Your task to perform on an android device: Do I have any events this weekend? Image 0: 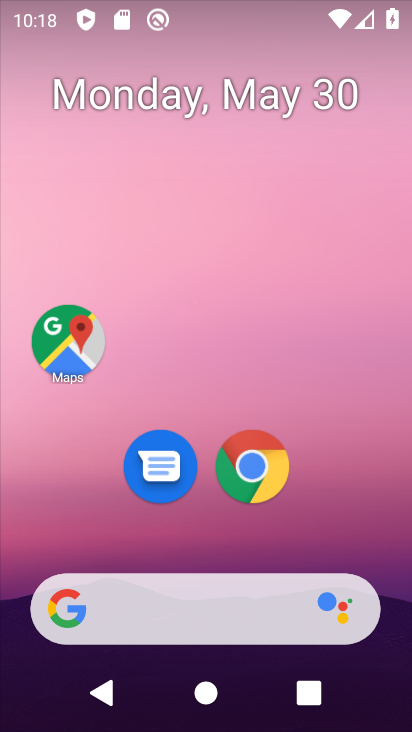
Step 0: drag from (181, 693) to (130, 80)
Your task to perform on an android device: Do I have any events this weekend? Image 1: 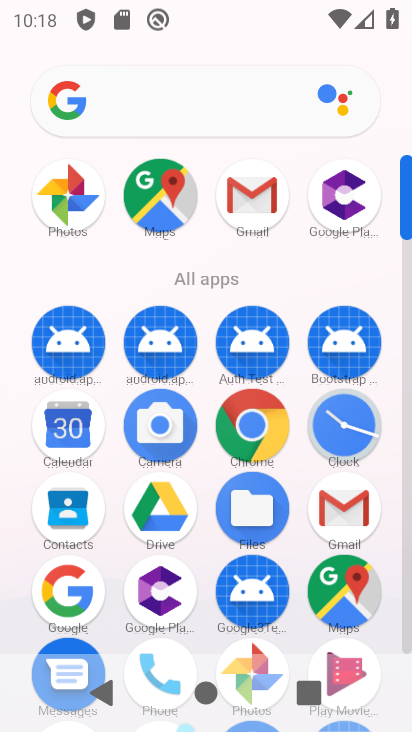
Step 1: click (70, 449)
Your task to perform on an android device: Do I have any events this weekend? Image 2: 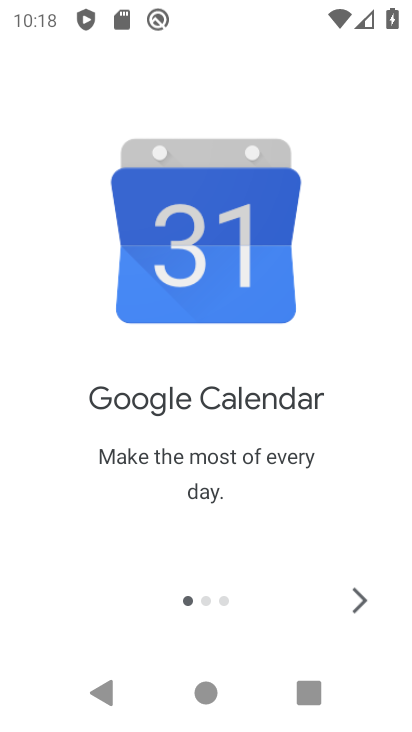
Step 2: click (360, 592)
Your task to perform on an android device: Do I have any events this weekend? Image 3: 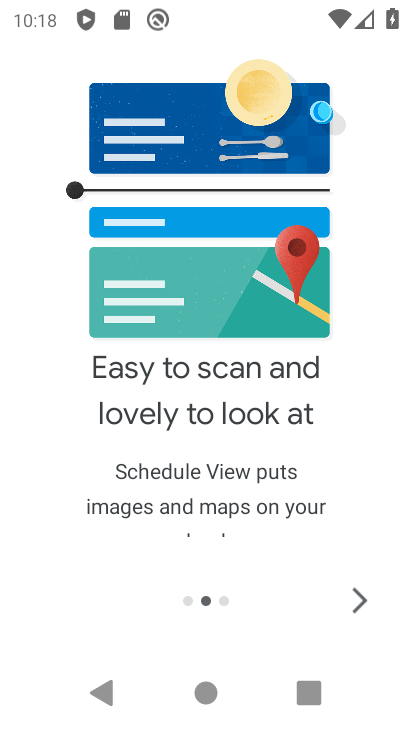
Step 3: click (360, 592)
Your task to perform on an android device: Do I have any events this weekend? Image 4: 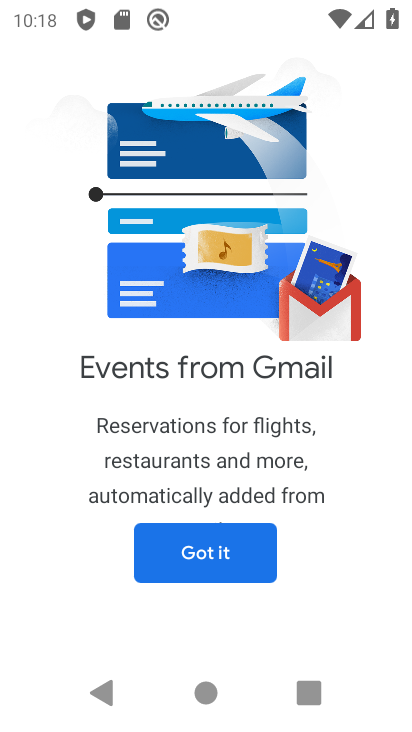
Step 4: click (178, 549)
Your task to perform on an android device: Do I have any events this weekend? Image 5: 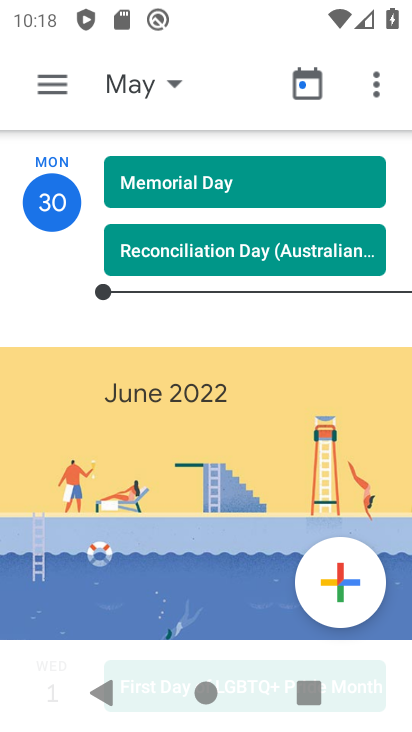
Step 5: click (54, 88)
Your task to perform on an android device: Do I have any events this weekend? Image 6: 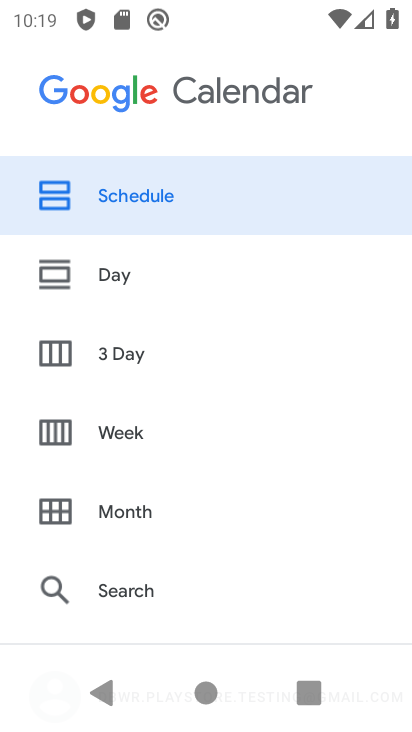
Step 6: click (123, 359)
Your task to perform on an android device: Do I have any events this weekend? Image 7: 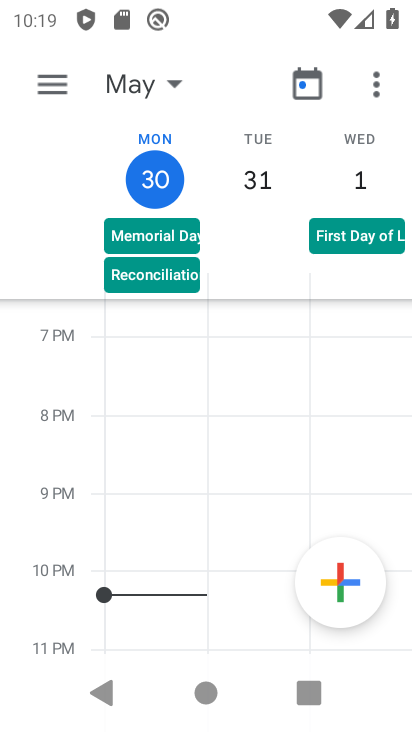
Step 7: drag from (364, 280) to (70, 290)
Your task to perform on an android device: Do I have any events this weekend? Image 8: 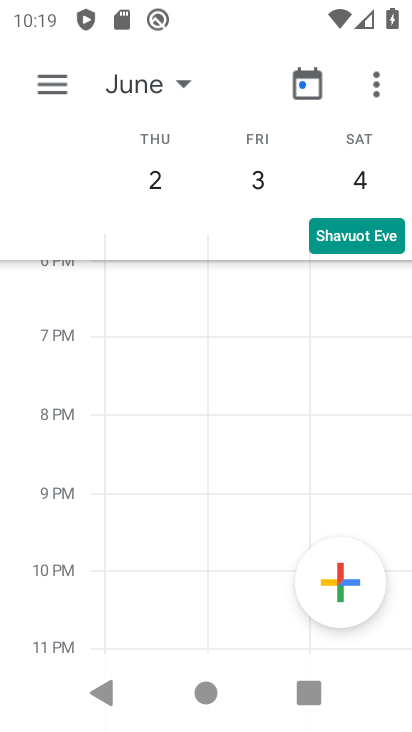
Step 8: drag from (388, 186) to (169, 200)
Your task to perform on an android device: Do I have any events this weekend? Image 9: 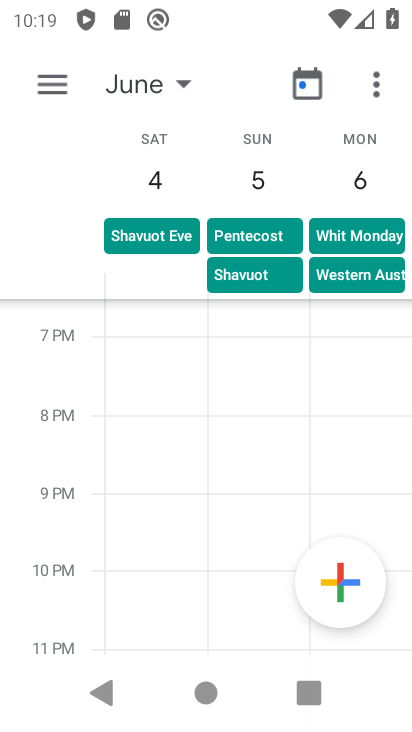
Step 9: click (167, 261)
Your task to perform on an android device: Do I have any events this weekend? Image 10: 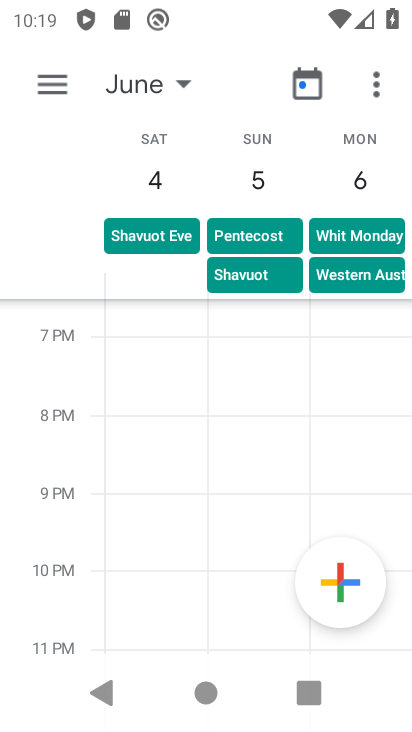
Step 10: task complete